Your task to perform on an android device: check out phone information Image 0: 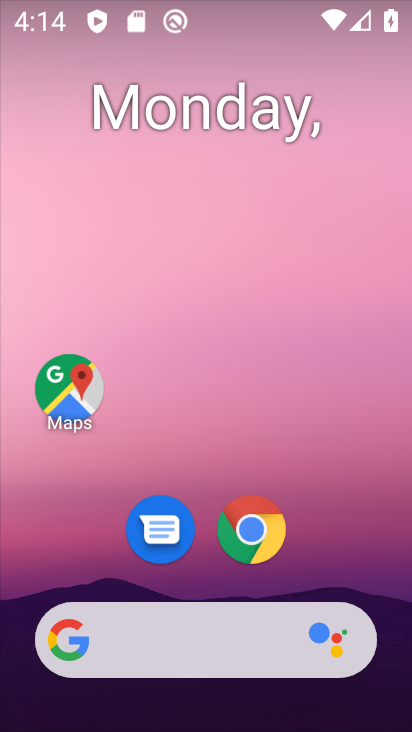
Step 0: drag from (228, 437) to (261, 64)
Your task to perform on an android device: check out phone information Image 1: 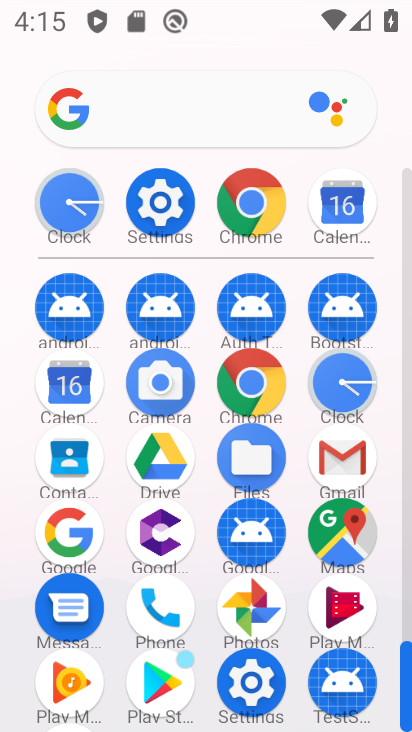
Step 1: click (253, 668)
Your task to perform on an android device: check out phone information Image 2: 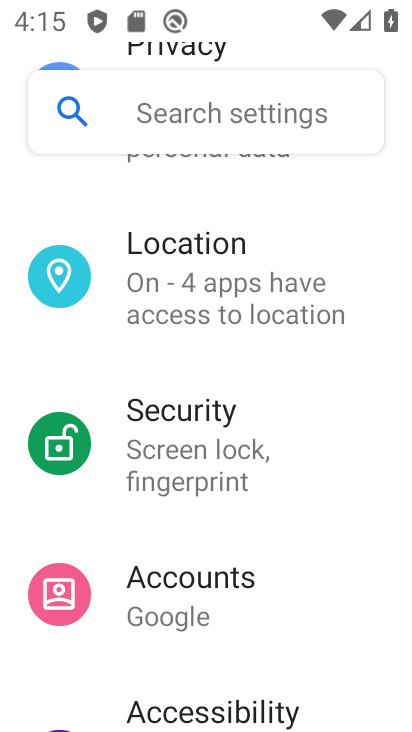
Step 2: drag from (170, 609) to (198, 224)
Your task to perform on an android device: check out phone information Image 3: 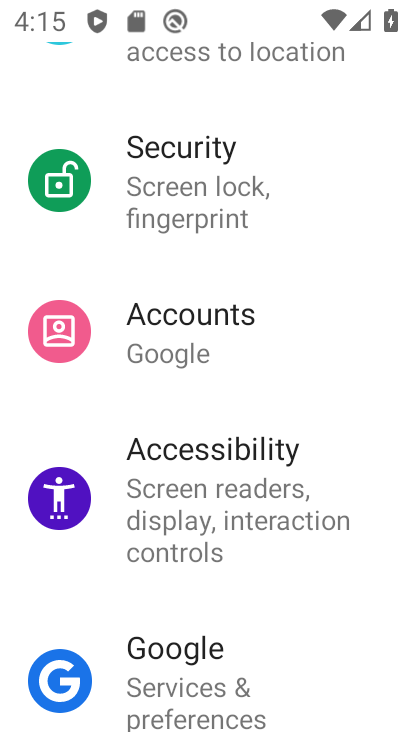
Step 3: drag from (200, 547) to (379, 15)
Your task to perform on an android device: check out phone information Image 4: 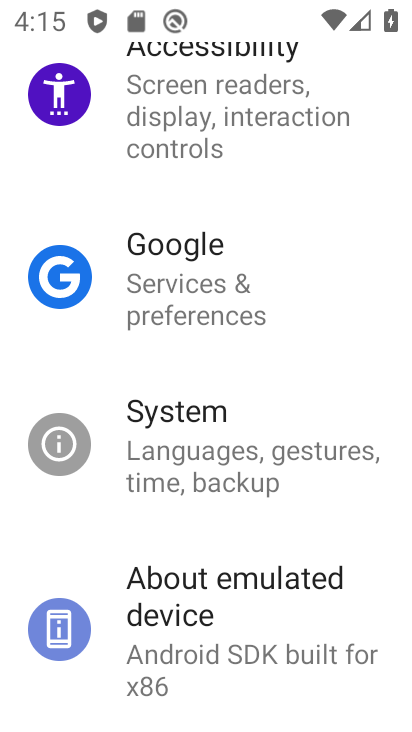
Step 4: drag from (191, 644) to (240, 384)
Your task to perform on an android device: check out phone information Image 5: 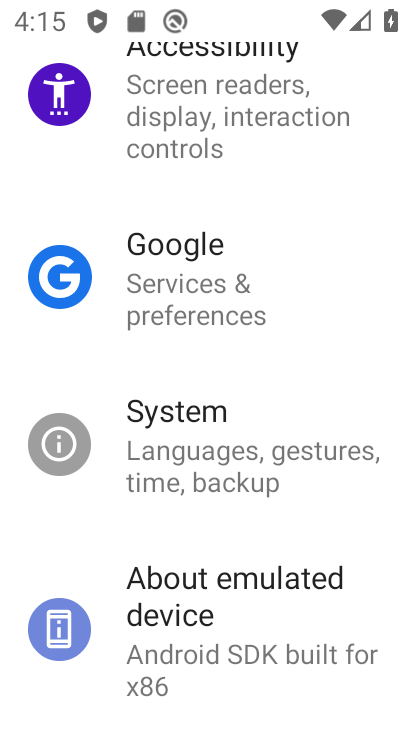
Step 5: click (197, 599)
Your task to perform on an android device: check out phone information Image 6: 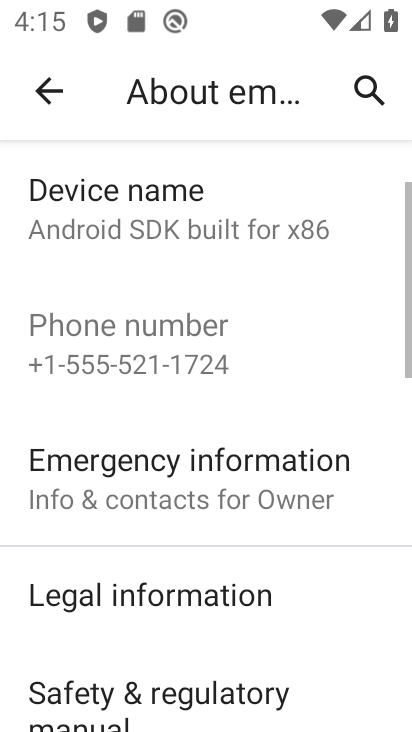
Step 6: task complete